Your task to perform on an android device: add a contact Image 0: 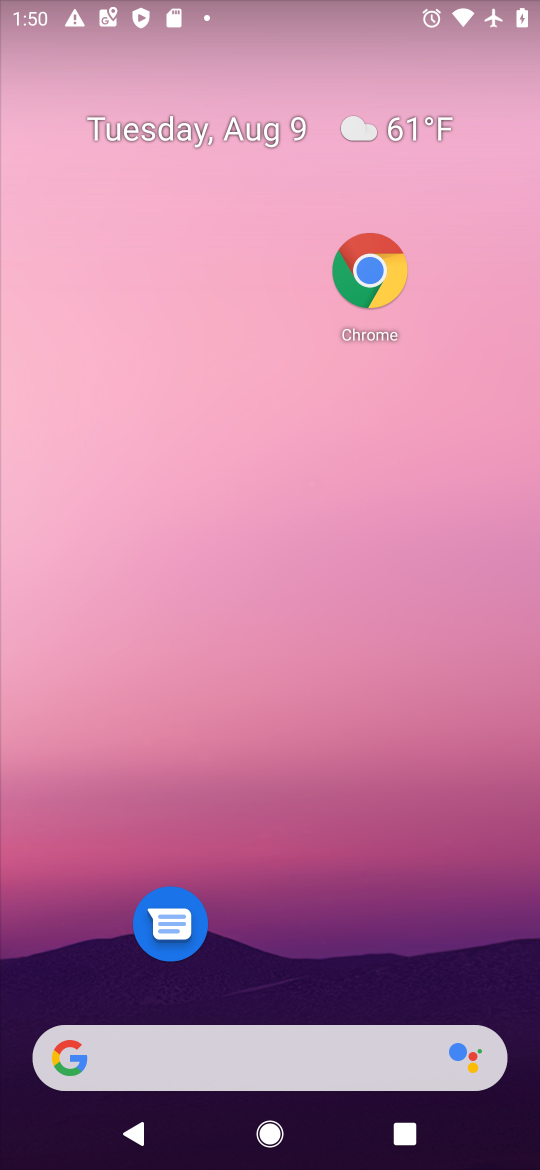
Step 0: drag from (384, 967) to (328, 103)
Your task to perform on an android device: add a contact Image 1: 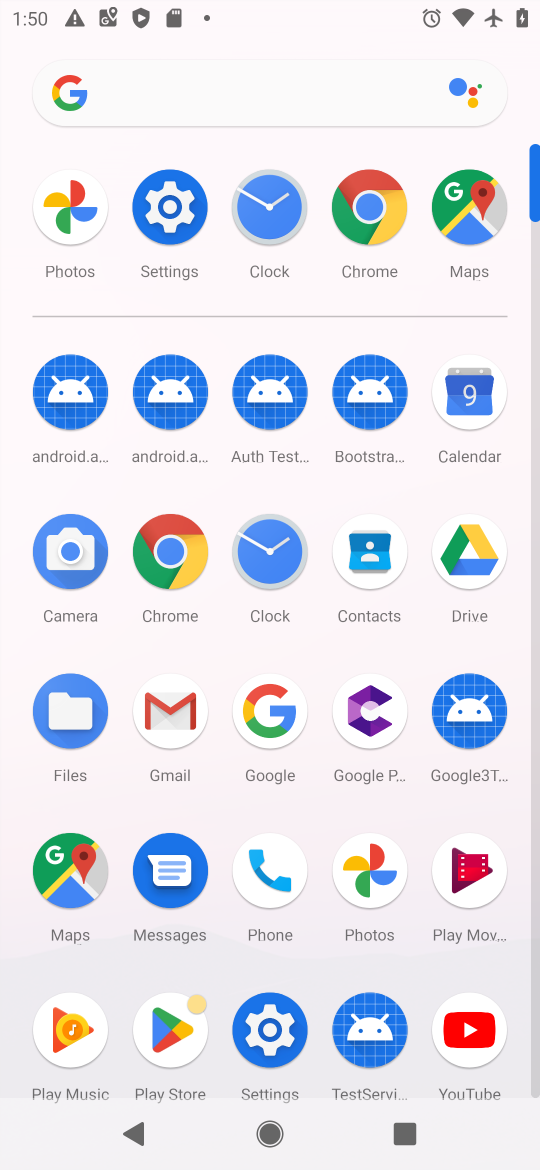
Step 1: click (363, 569)
Your task to perform on an android device: add a contact Image 2: 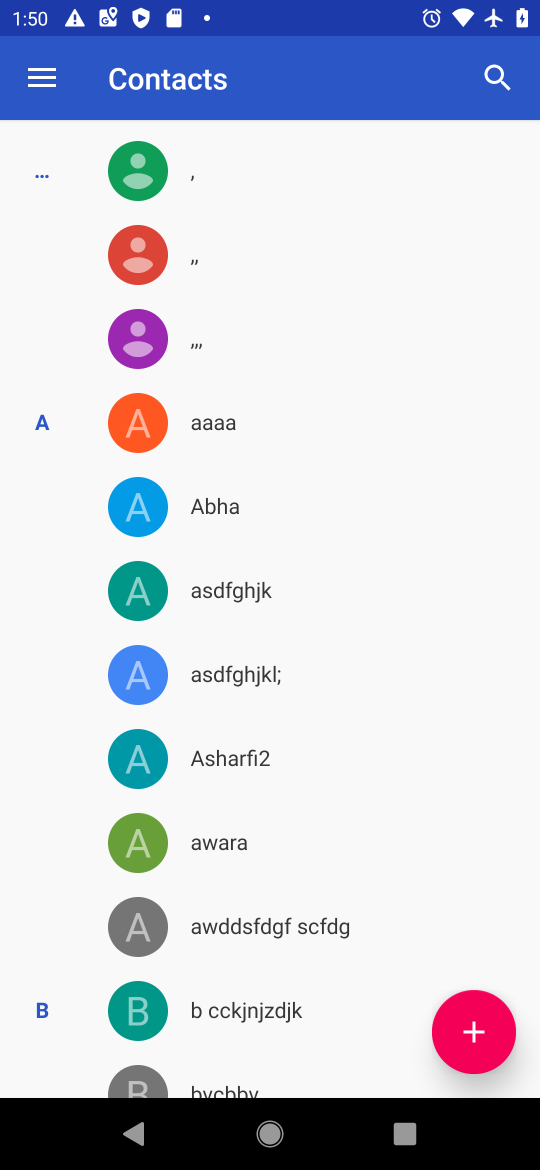
Step 2: click (477, 1021)
Your task to perform on an android device: add a contact Image 3: 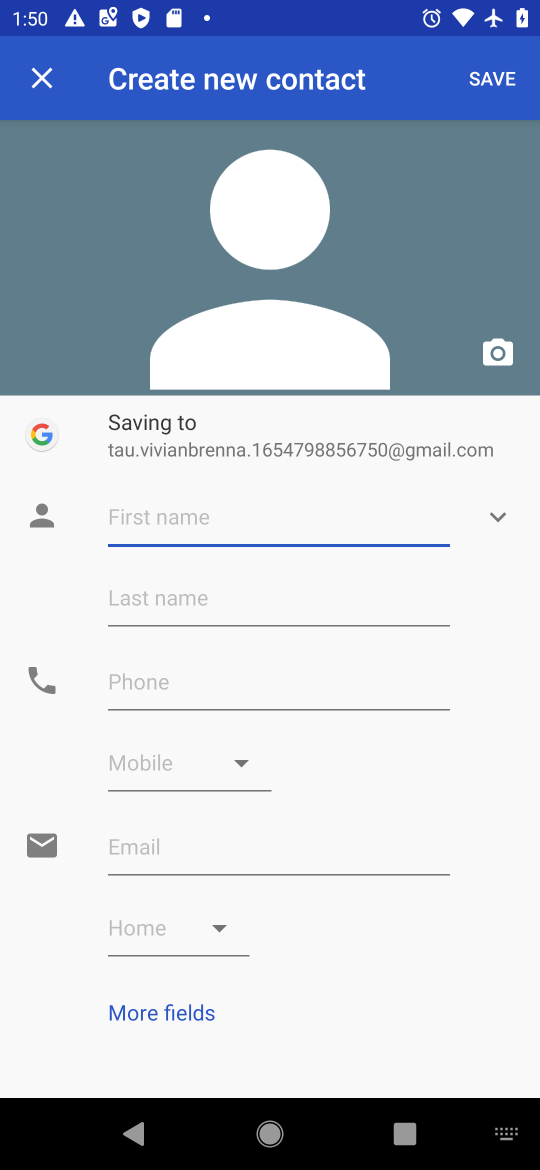
Step 3: type "adsfdghjkl"
Your task to perform on an android device: add a contact Image 4: 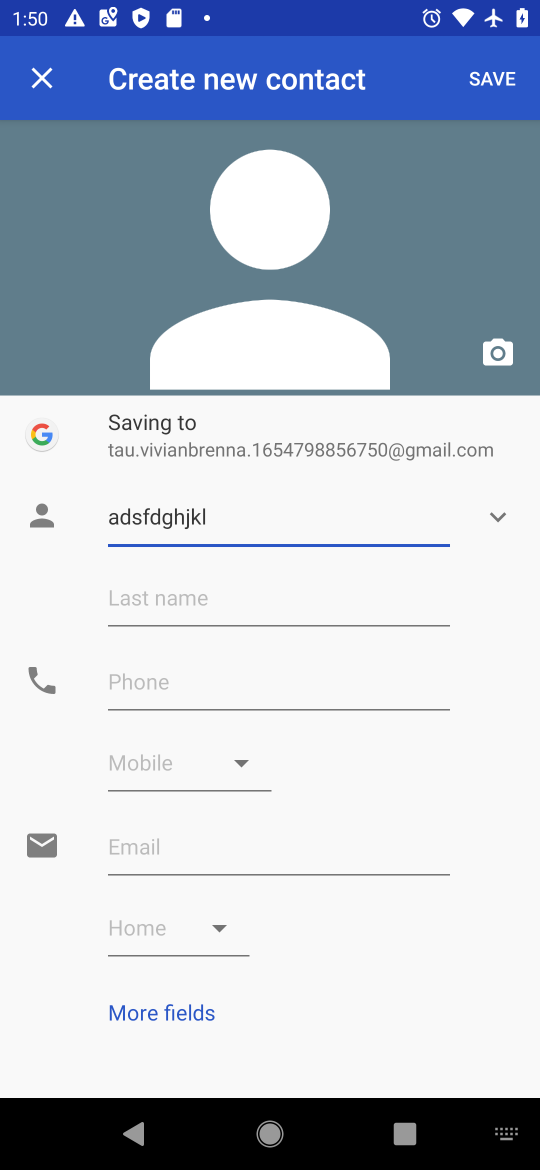
Step 4: click (233, 582)
Your task to perform on an android device: add a contact Image 5: 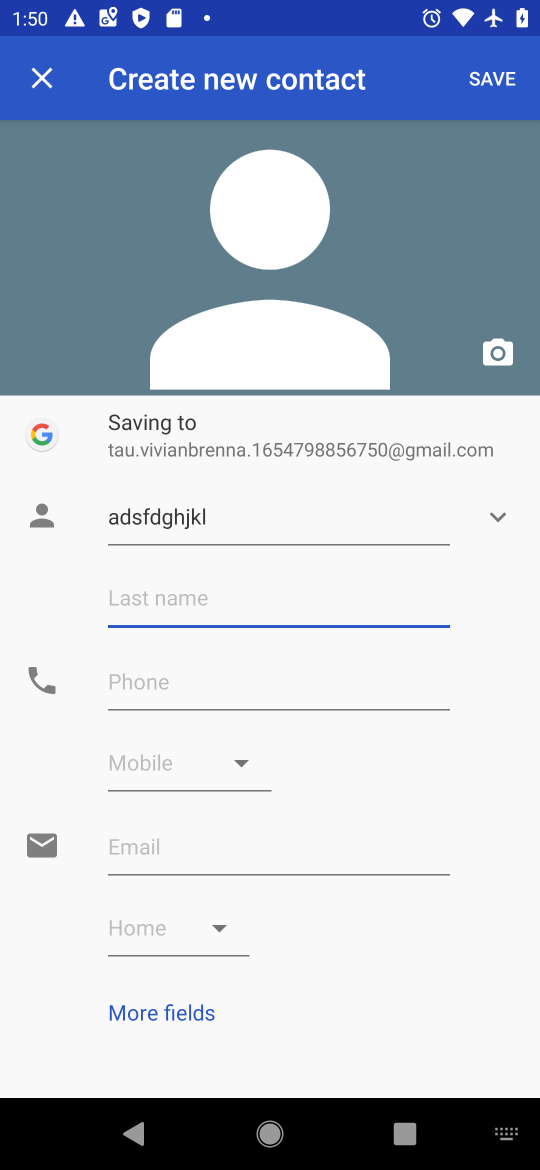
Step 5: type "qwertyuiop"
Your task to perform on an android device: add a contact Image 6: 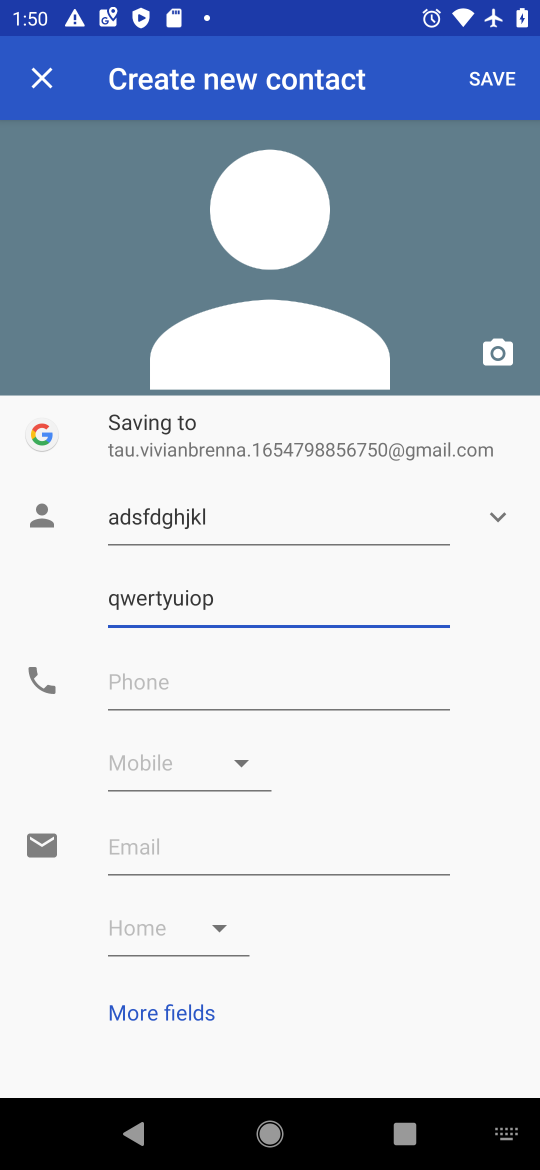
Step 6: click (203, 668)
Your task to perform on an android device: add a contact Image 7: 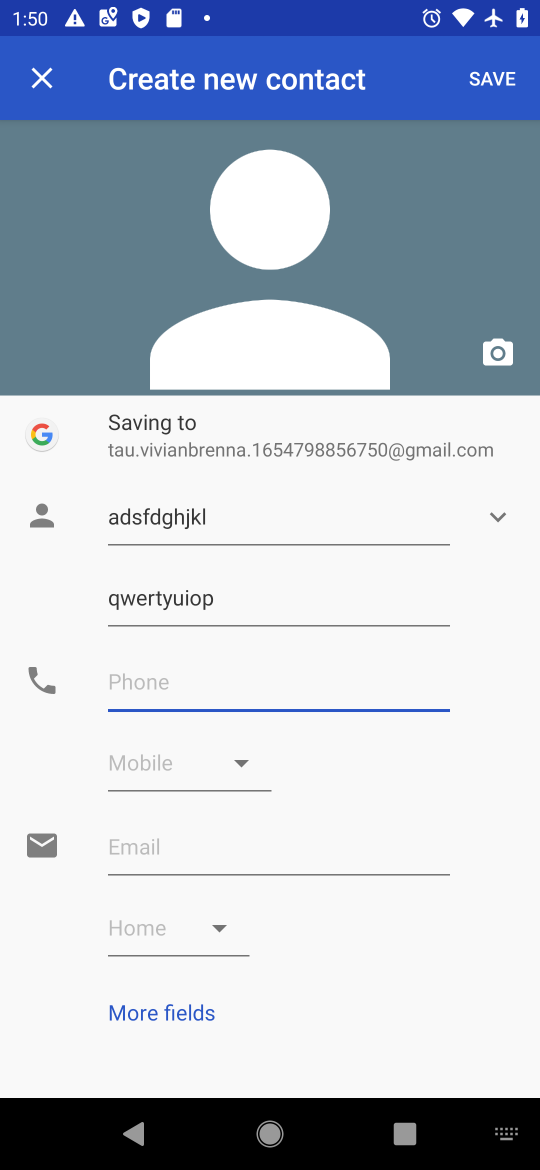
Step 7: type "123456789087654321"
Your task to perform on an android device: add a contact Image 8: 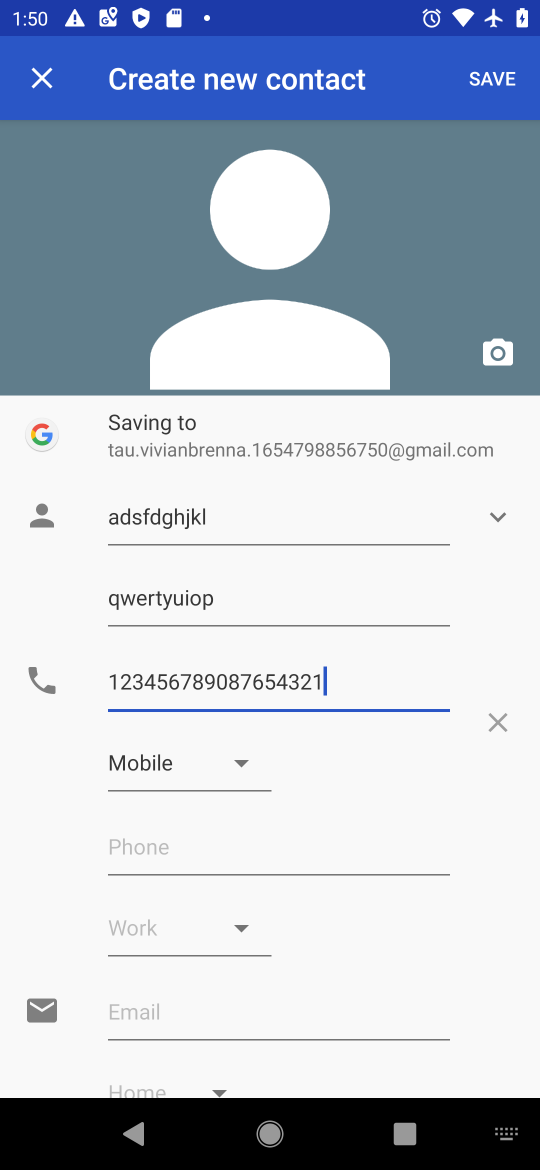
Step 8: click (470, 94)
Your task to perform on an android device: add a contact Image 9: 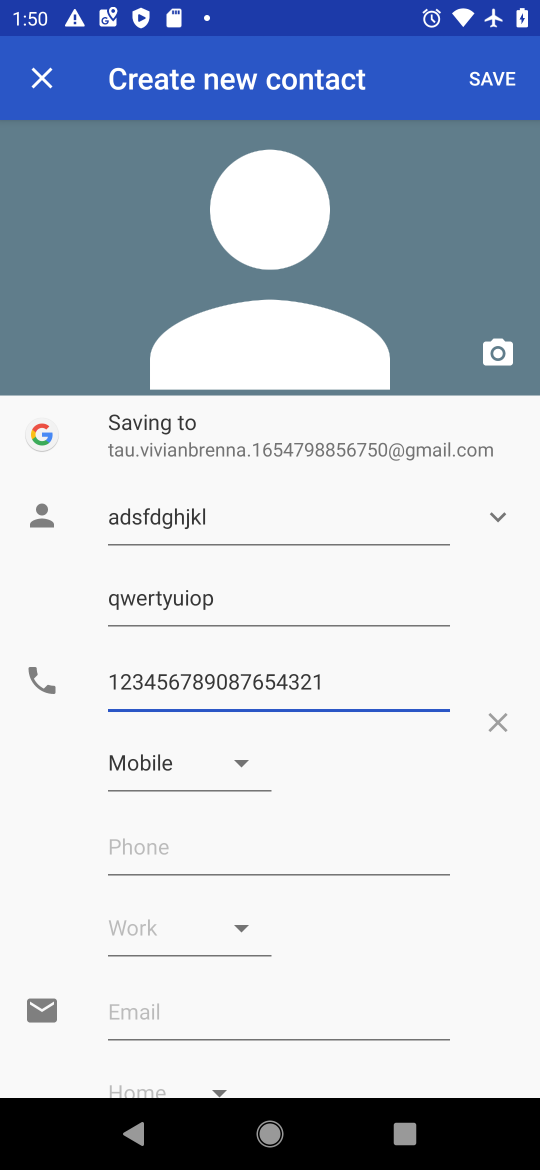
Step 9: task complete